Your task to perform on an android device: Open the map Image 0: 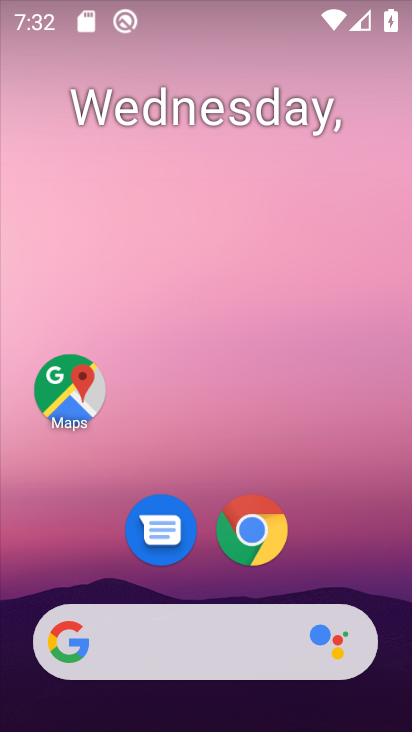
Step 0: drag from (391, 633) to (302, 134)
Your task to perform on an android device: Open the map Image 1: 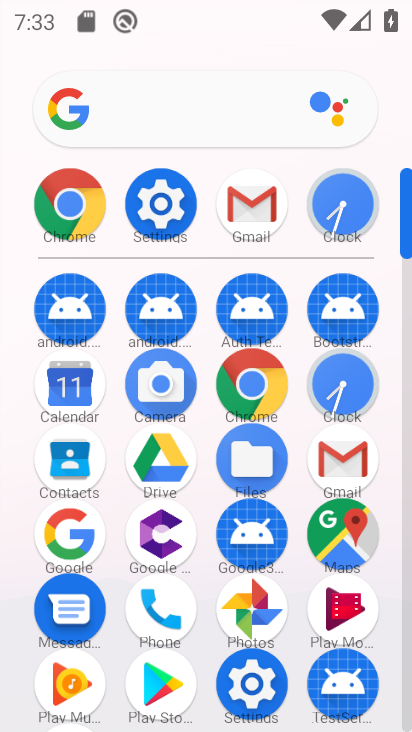
Step 1: click (351, 536)
Your task to perform on an android device: Open the map Image 2: 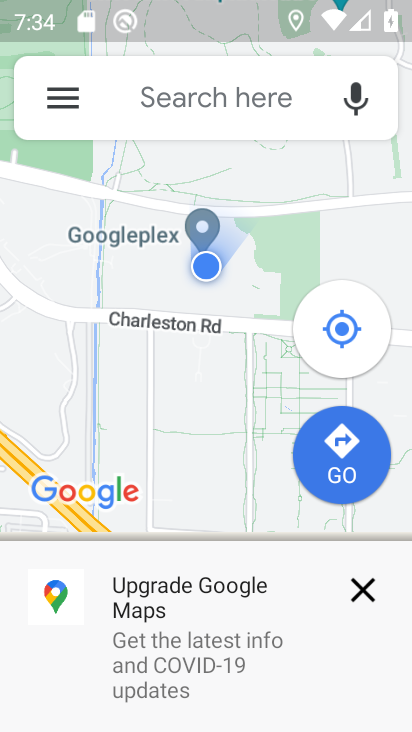
Step 2: task complete